Your task to perform on an android device: Go to privacy settings Image 0: 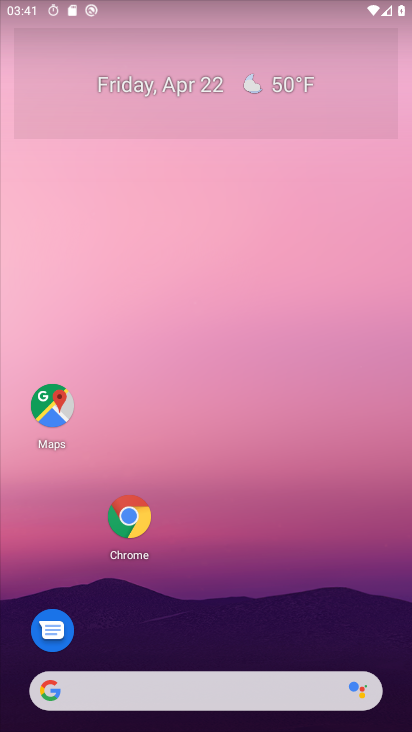
Step 0: click (319, 273)
Your task to perform on an android device: Go to privacy settings Image 1: 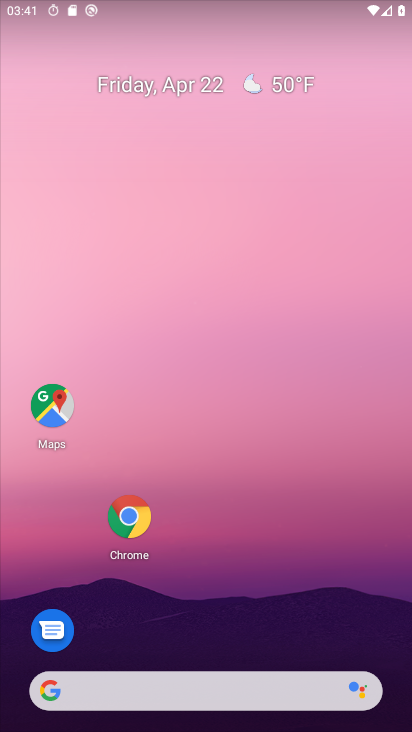
Step 1: drag from (379, 651) to (304, 207)
Your task to perform on an android device: Go to privacy settings Image 2: 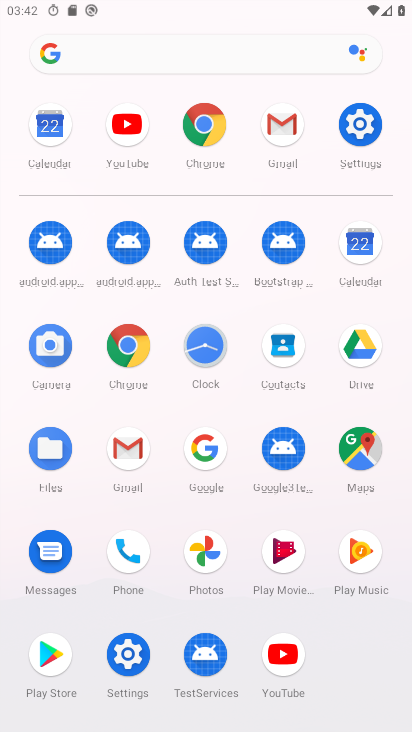
Step 2: click (356, 121)
Your task to perform on an android device: Go to privacy settings Image 3: 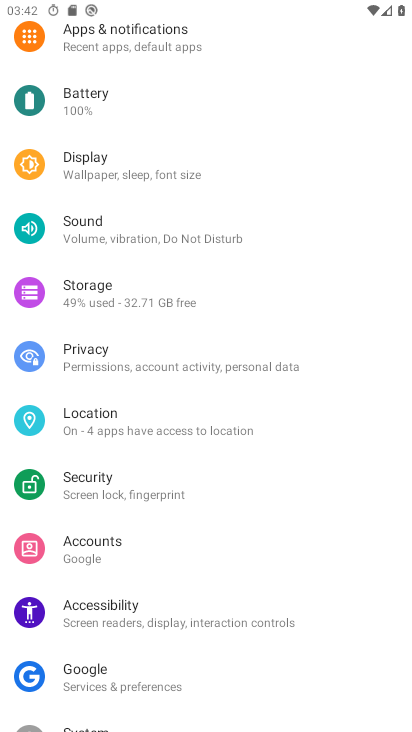
Step 3: drag from (337, 690) to (323, 384)
Your task to perform on an android device: Go to privacy settings Image 4: 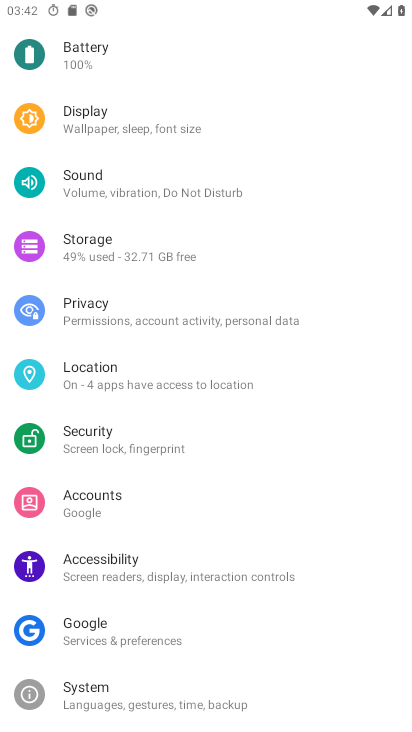
Step 4: press home button
Your task to perform on an android device: Go to privacy settings Image 5: 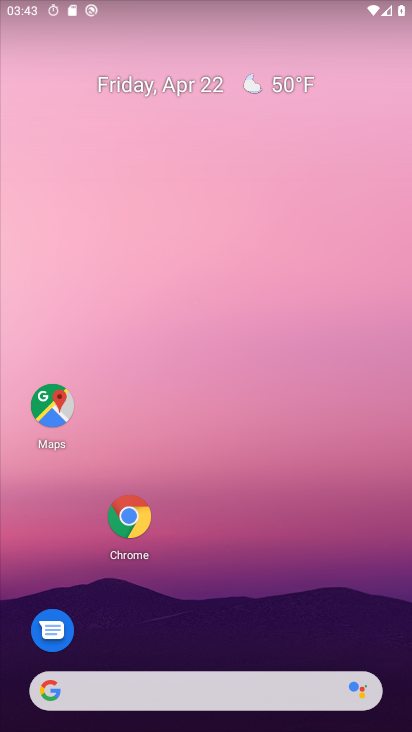
Step 5: drag from (366, 348) to (371, 302)
Your task to perform on an android device: Go to privacy settings Image 6: 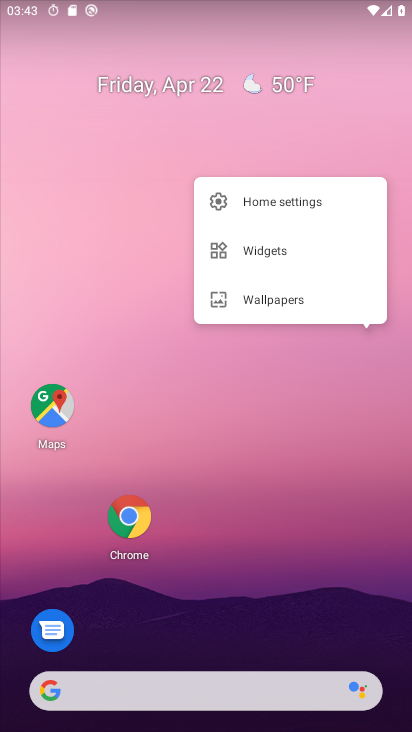
Step 6: press home button
Your task to perform on an android device: Go to privacy settings Image 7: 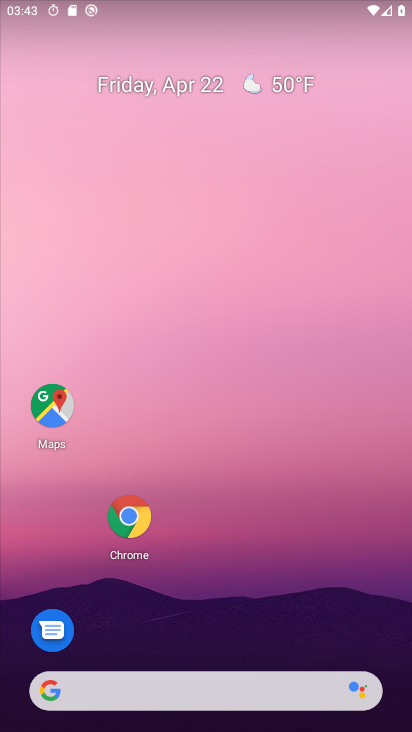
Step 7: drag from (340, 616) to (311, 281)
Your task to perform on an android device: Go to privacy settings Image 8: 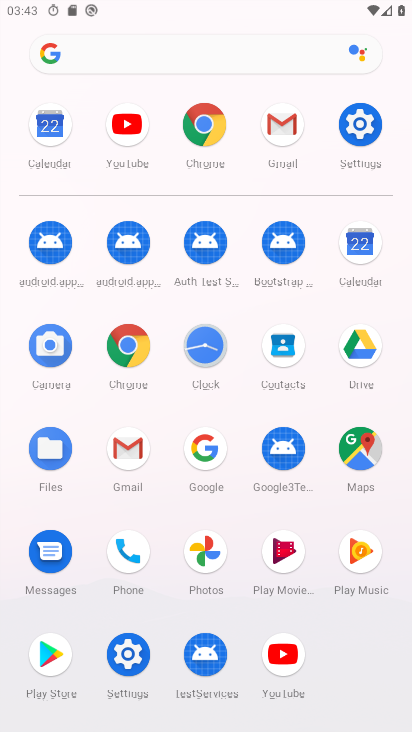
Step 8: click (362, 131)
Your task to perform on an android device: Go to privacy settings Image 9: 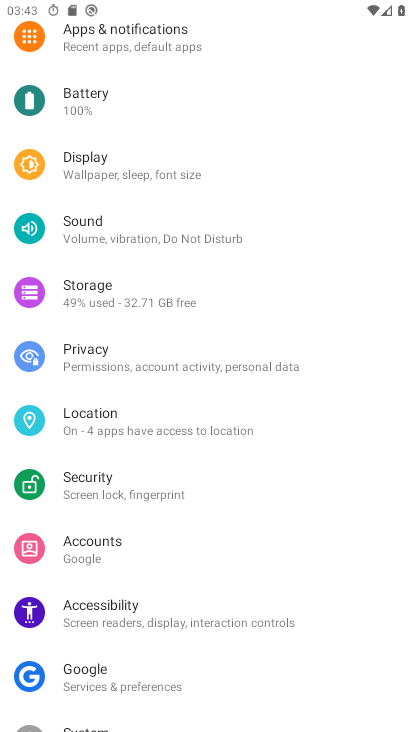
Step 9: press home button
Your task to perform on an android device: Go to privacy settings Image 10: 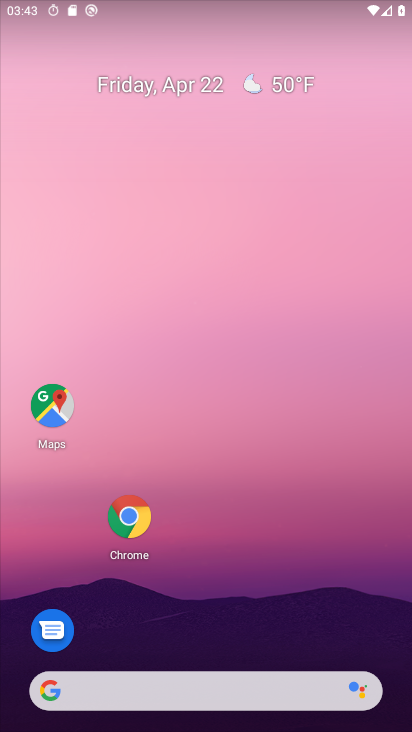
Step 10: click (128, 515)
Your task to perform on an android device: Go to privacy settings Image 11: 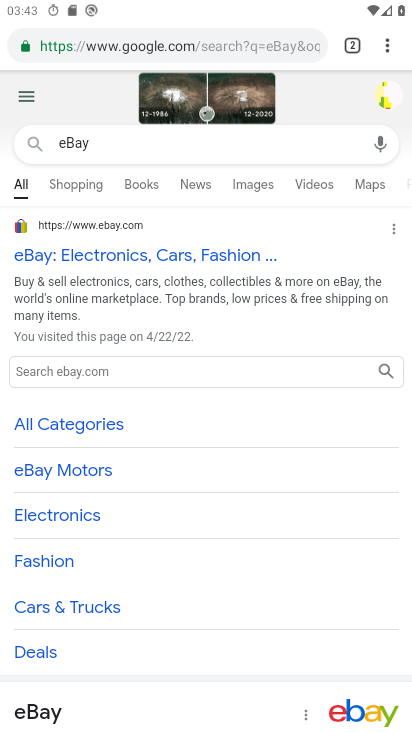
Step 11: click (383, 38)
Your task to perform on an android device: Go to privacy settings Image 12: 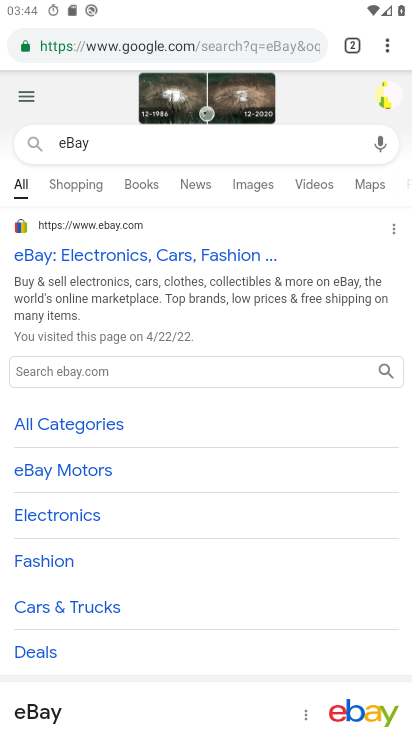
Step 12: click (386, 44)
Your task to perform on an android device: Go to privacy settings Image 13: 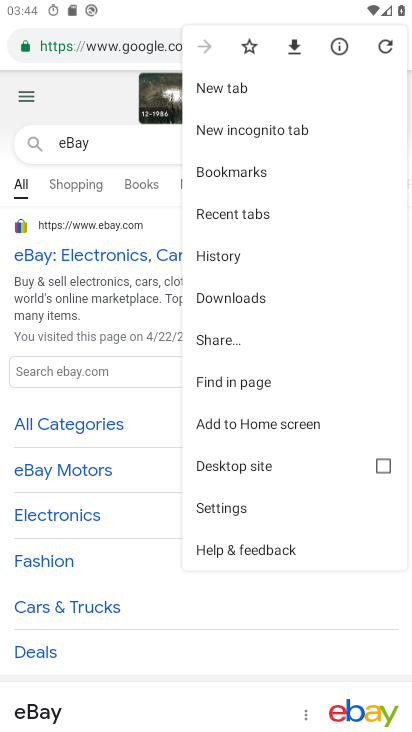
Step 13: click (215, 509)
Your task to perform on an android device: Go to privacy settings Image 14: 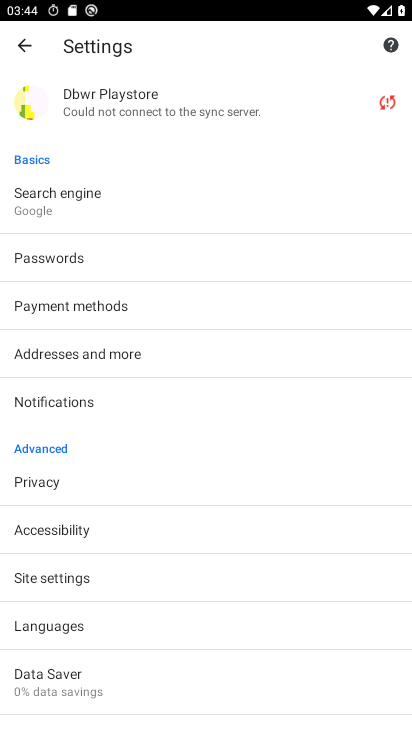
Step 14: click (23, 475)
Your task to perform on an android device: Go to privacy settings Image 15: 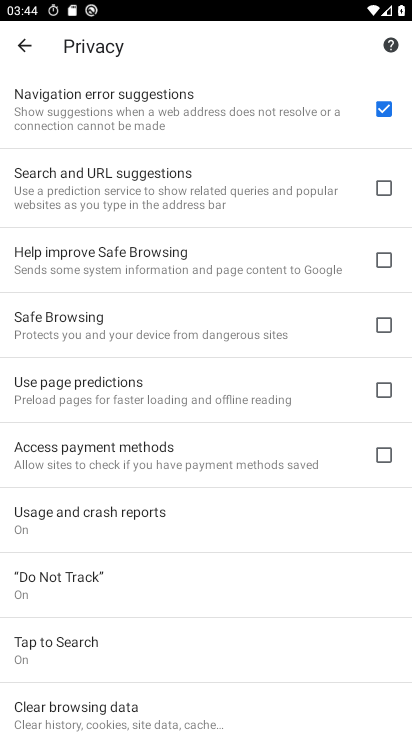
Step 15: task complete